Your task to perform on an android device: Show me productivity apps on the Play Store Image 0: 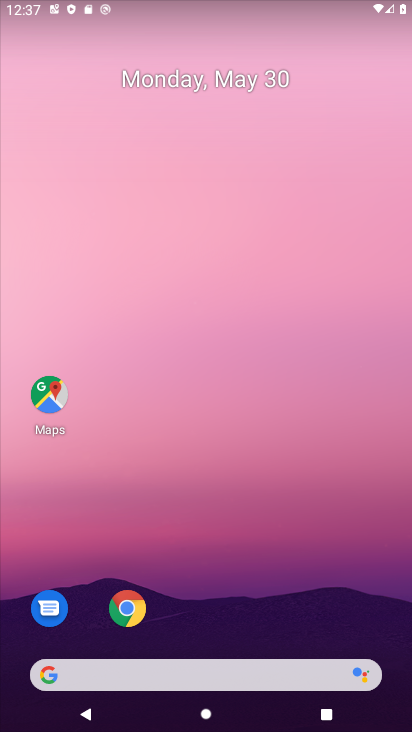
Step 0: drag from (194, 613) to (170, 239)
Your task to perform on an android device: Show me productivity apps on the Play Store Image 1: 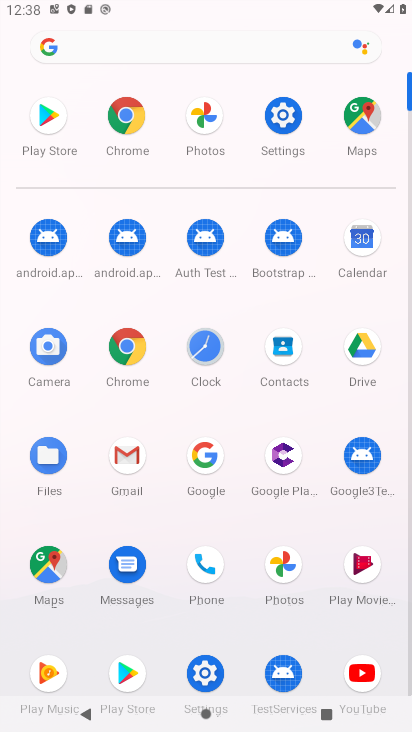
Step 1: click (44, 111)
Your task to perform on an android device: Show me productivity apps on the Play Store Image 2: 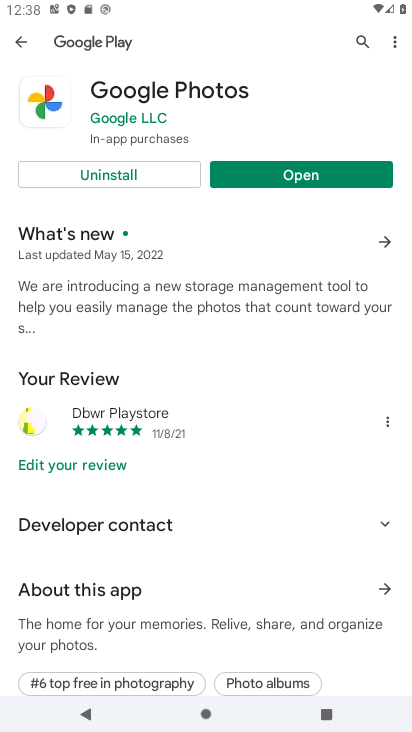
Step 2: click (26, 32)
Your task to perform on an android device: Show me productivity apps on the Play Store Image 3: 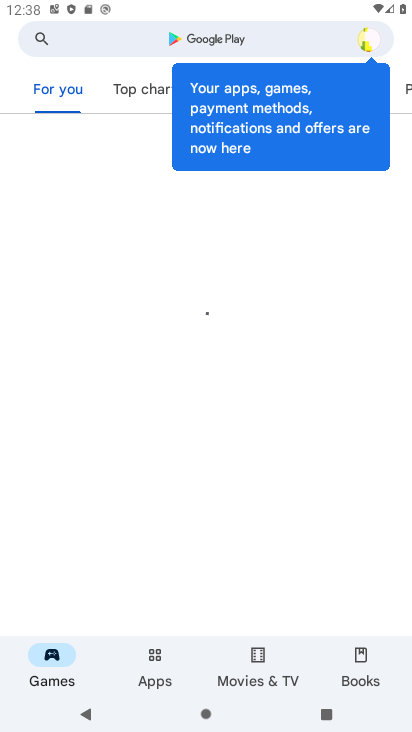
Step 3: click (94, 35)
Your task to perform on an android device: Show me productivity apps on the Play Store Image 4: 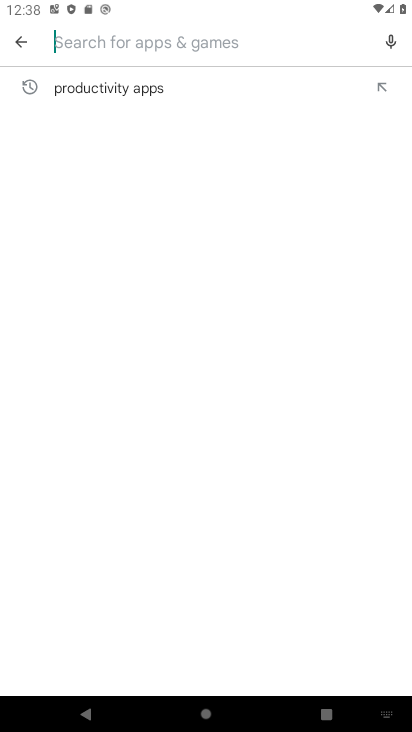
Step 4: click (99, 85)
Your task to perform on an android device: Show me productivity apps on the Play Store Image 5: 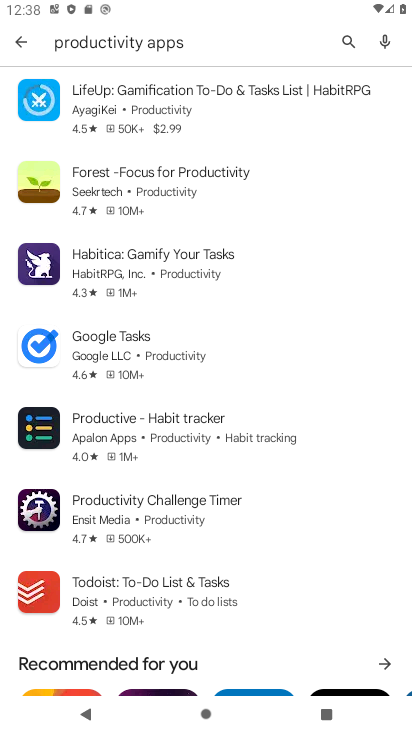
Step 5: task complete